Your task to perform on an android device: What's the weather? Image 0: 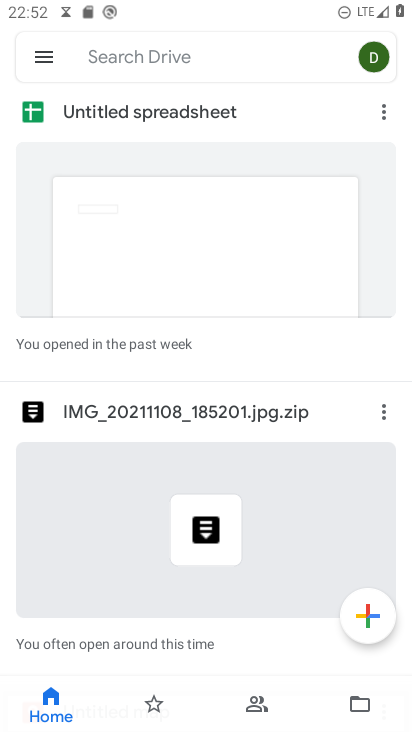
Step 0: press home button
Your task to perform on an android device: What's the weather? Image 1: 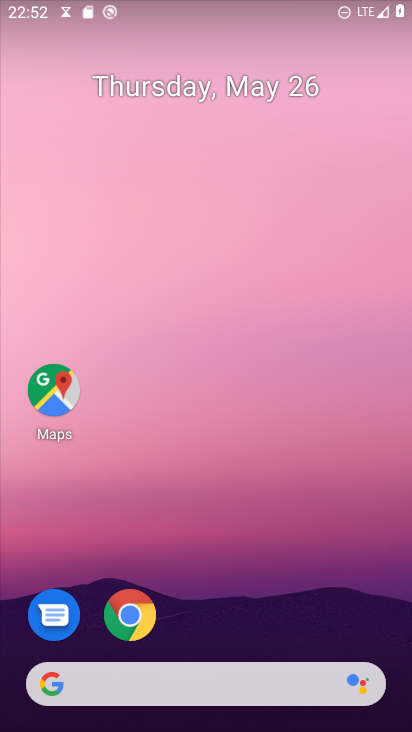
Step 1: click (142, 608)
Your task to perform on an android device: What's the weather? Image 2: 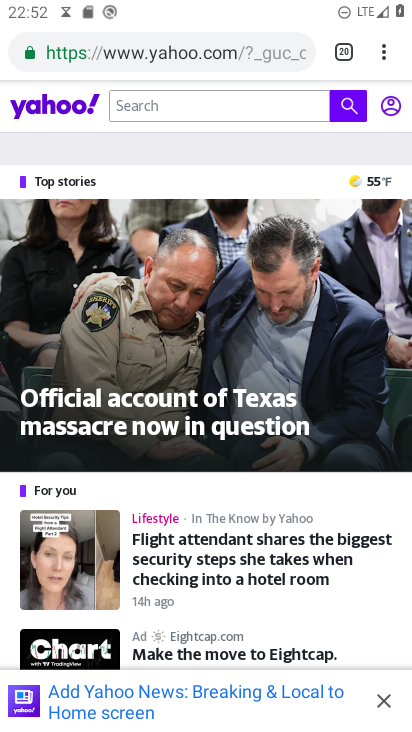
Step 2: click (390, 49)
Your task to perform on an android device: What's the weather? Image 3: 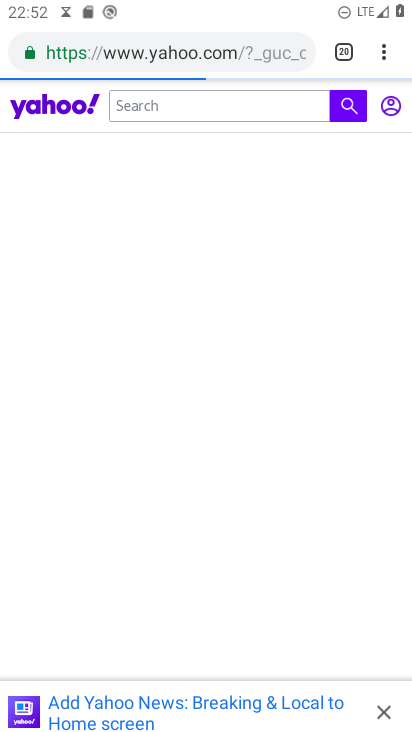
Step 3: click (387, 46)
Your task to perform on an android device: What's the weather? Image 4: 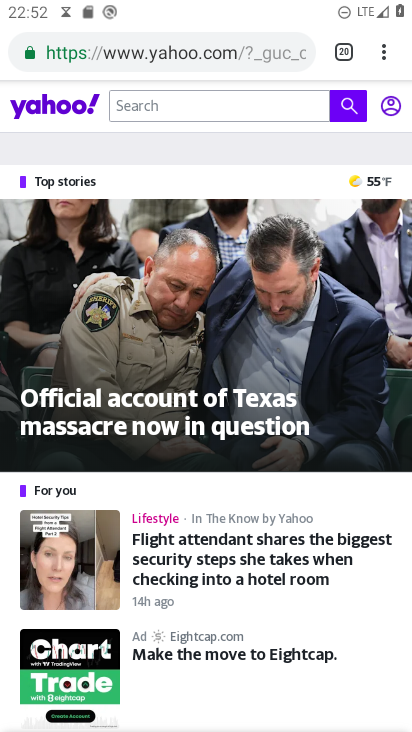
Step 4: click (385, 48)
Your task to perform on an android device: What's the weather? Image 5: 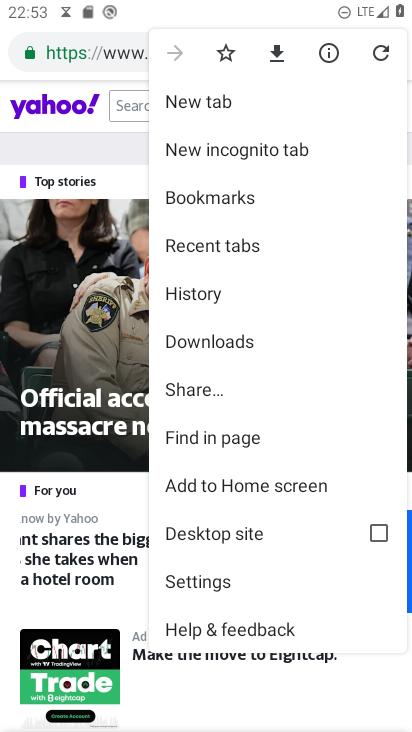
Step 5: click (230, 96)
Your task to perform on an android device: What's the weather? Image 6: 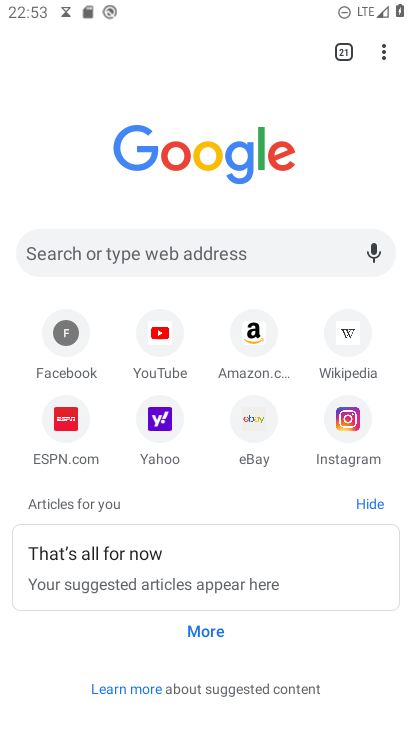
Step 6: click (223, 251)
Your task to perform on an android device: What's the weather? Image 7: 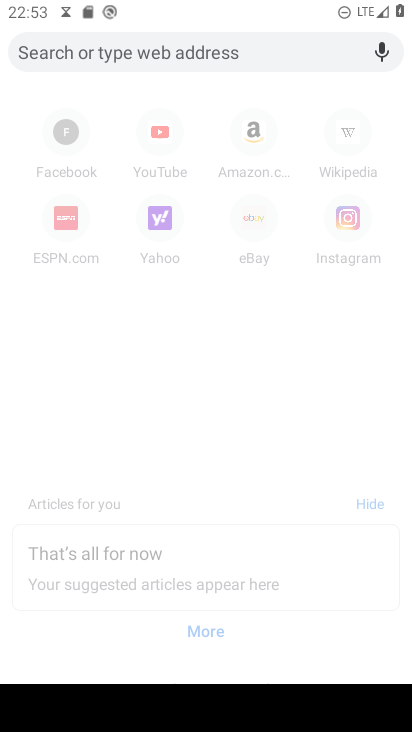
Step 7: type "What's the weather?"
Your task to perform on an android device: What's the weather? Image 8: 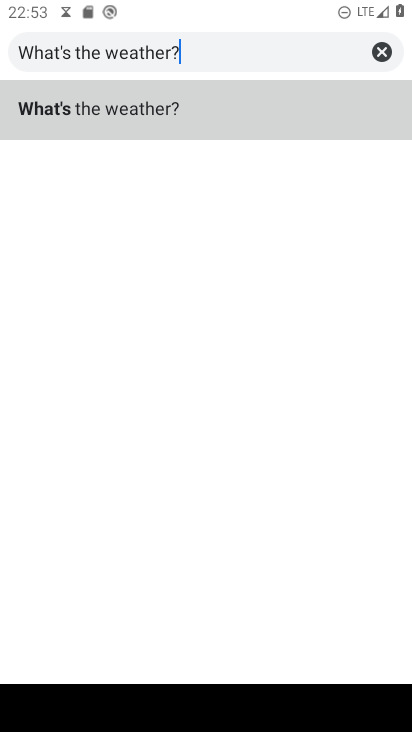
Step 8: click (168, 101)
Your task to perform on an android device: What's the weather? Image 9: 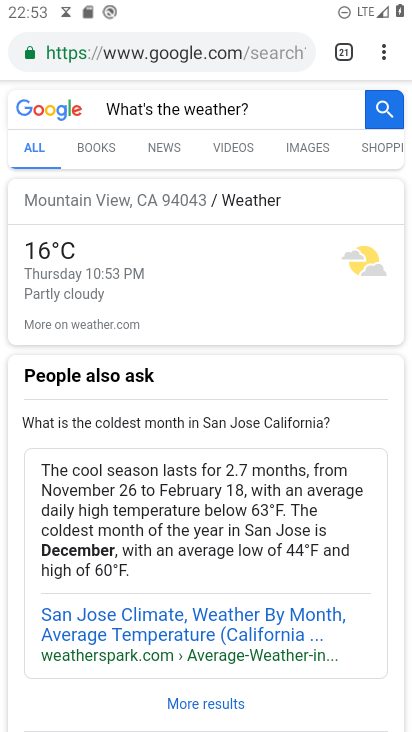
Step 9: task complete